Your task to perform on an android device: Go to battery settings Image 0: 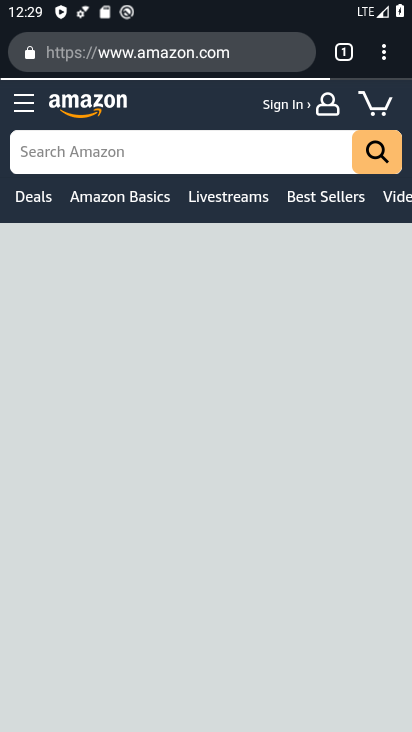
Step 0: press home button
Your task to perform on an android device: Go to battery settings Image 1: 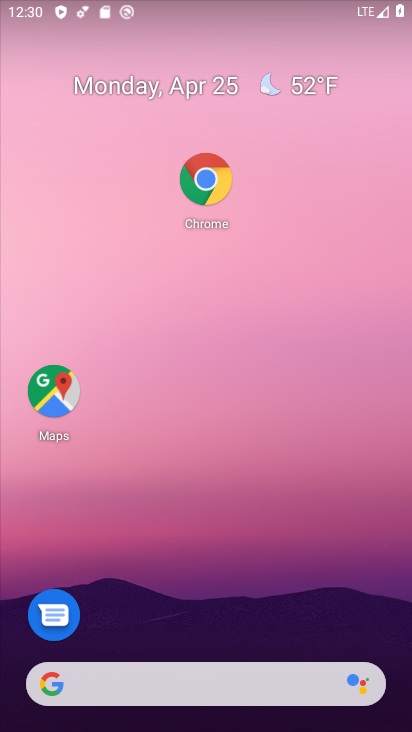
Step 1: drag from (178, 690) to (294, 135)
Your task to perform on an android device: Go to battery settings Image 2: 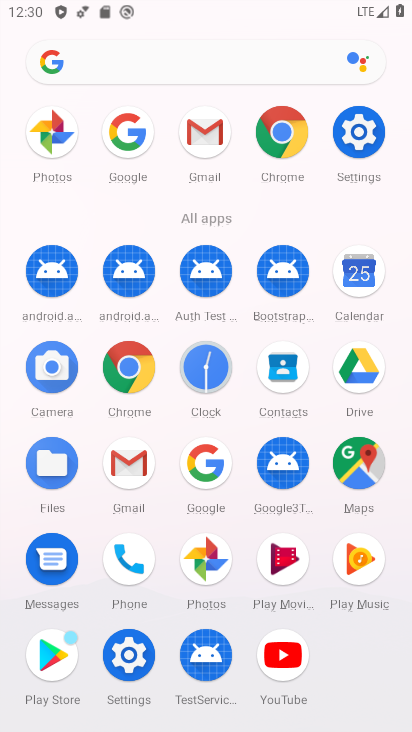
Step 2: click (365, 138)
Your task to perform on an android device: Go to battery settings Image 3: 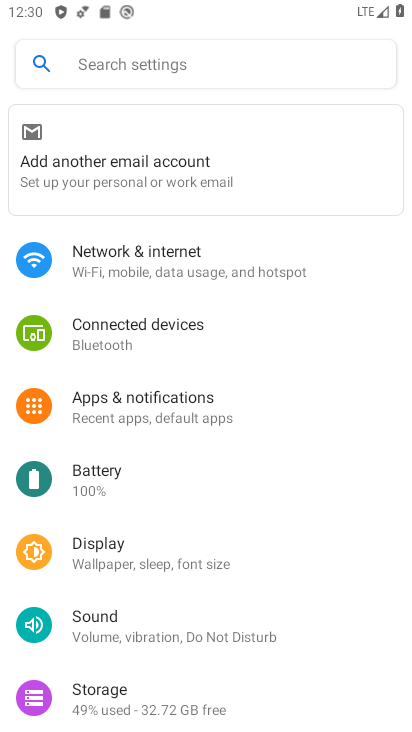
Step 3: click (87, 482)
Your task to perform on an android device: Go to battery settings Image 4: 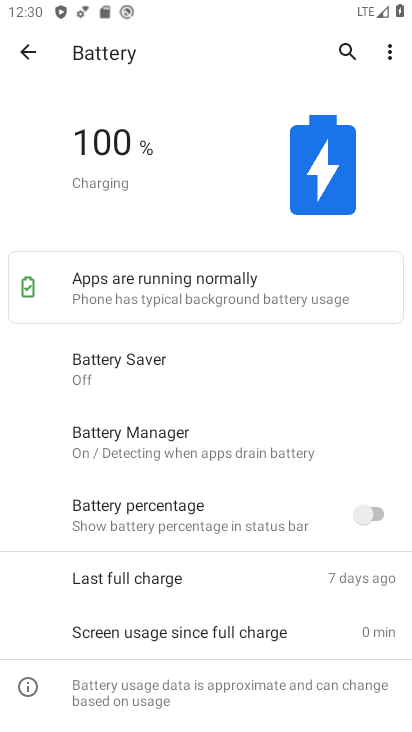
Step 4: task complete